Your task to perform on an android device: Search for the best burger restaurants on Maps Image 0: 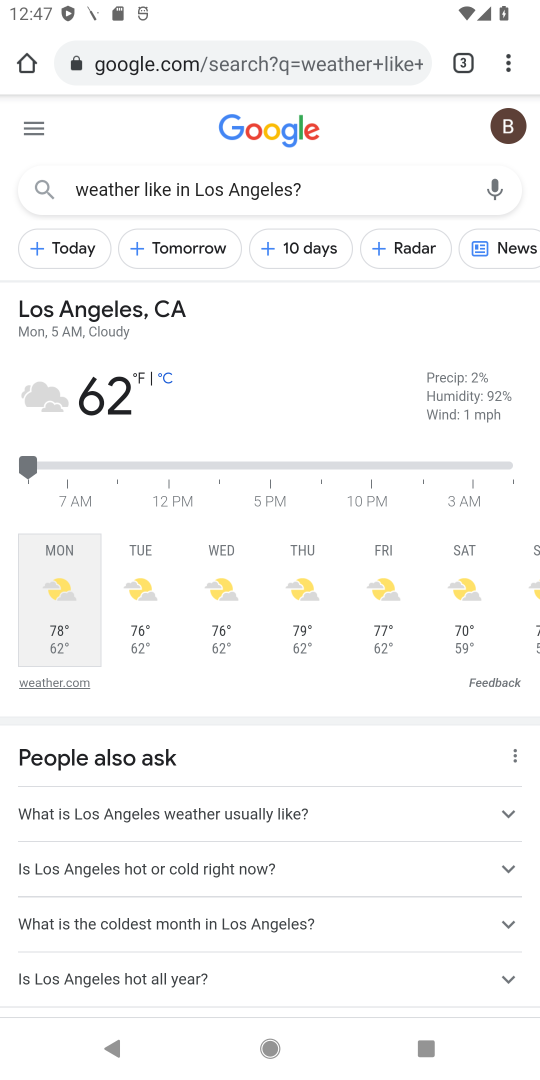
Step 0: press home button
Your task to perform on an android device: Search for the best burger restaurants on Maps Image 1: 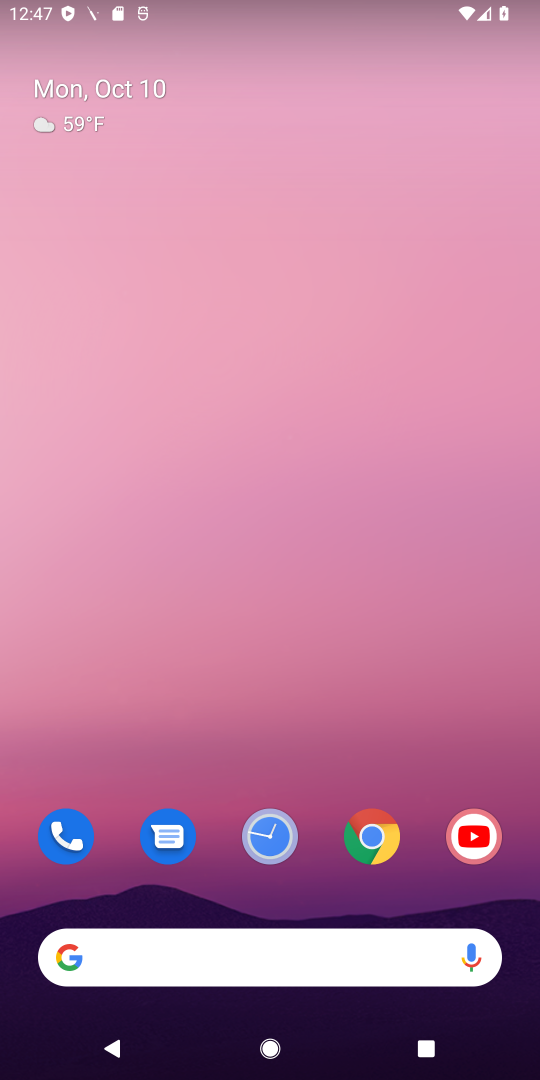
Step 1: drag from (394, 744) to (438, 317)
Your task to perform on an android device: Search for the best burger restaurants on Maps Image 2: 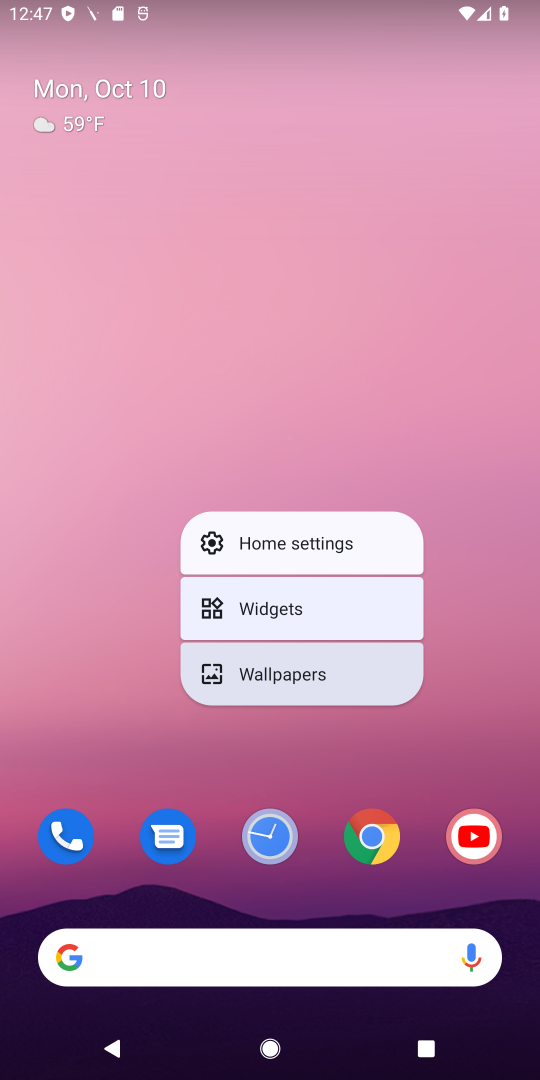
Step 2: click (474, 703)
Your task to perform on an android device: Search for the best burger restaurants on Maps Image 3: 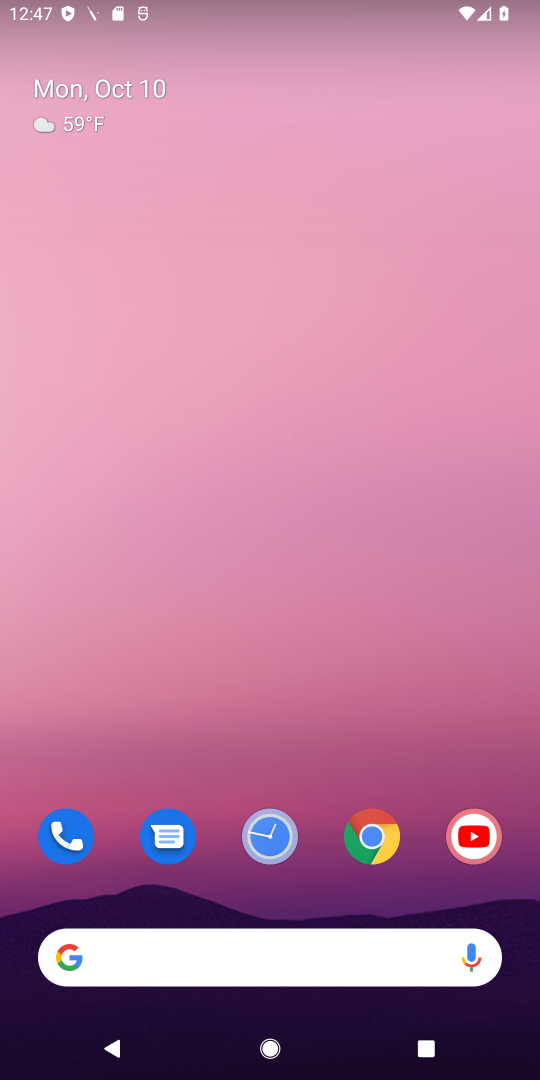
Step 3: click (474, 703)
Your task to perform on an android device: Search for the best burger restaurants on Maps Image 4: 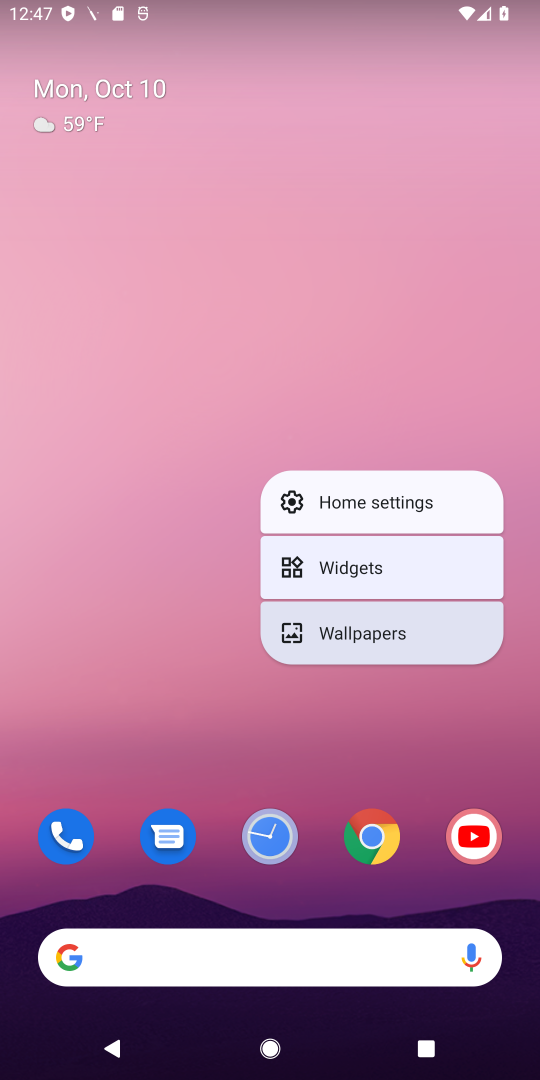
Step 4: click (227, 754)
Your task to perform on an android device: Search for the best burger restaurants on Maps Image 5: 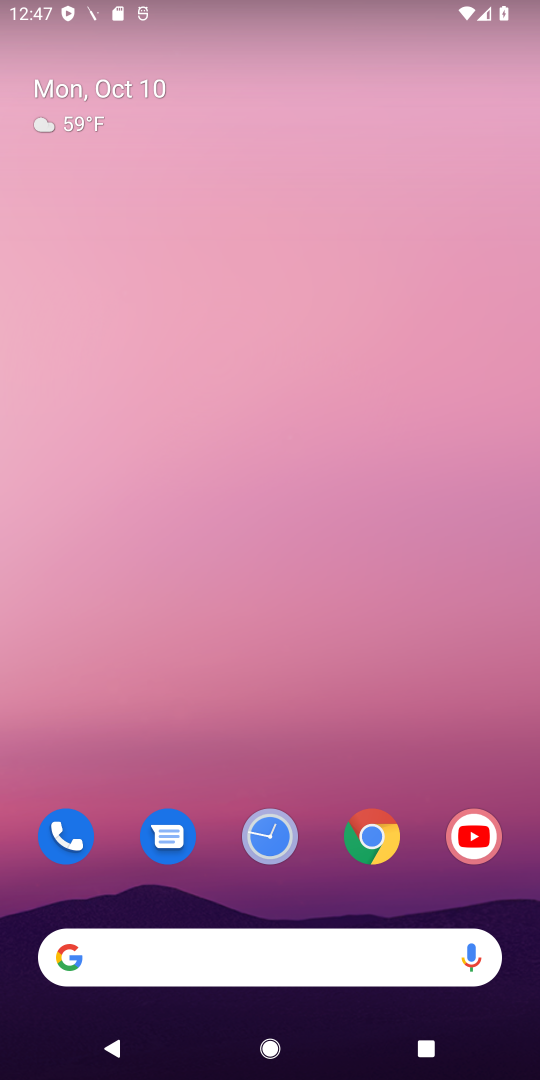
Step 5: drag from (227, 754) to (279, 274)
Your task to perform on an android device: Search for the best burger restaurants on Maps Image 6: 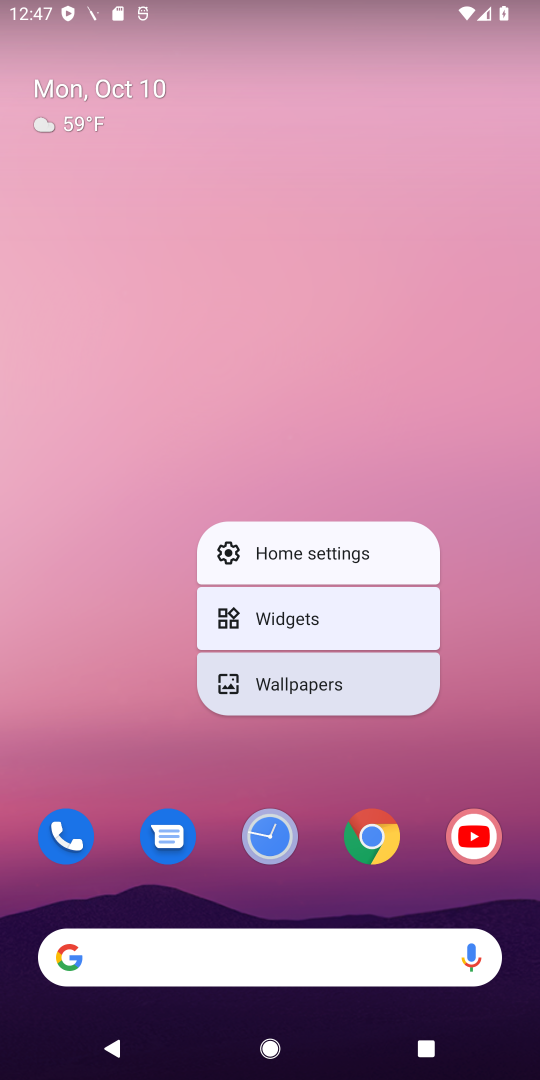
Step 6: click (279, 274)
Your task to perform on an android device: Search for the best burger restaurants on Maps Image 7: 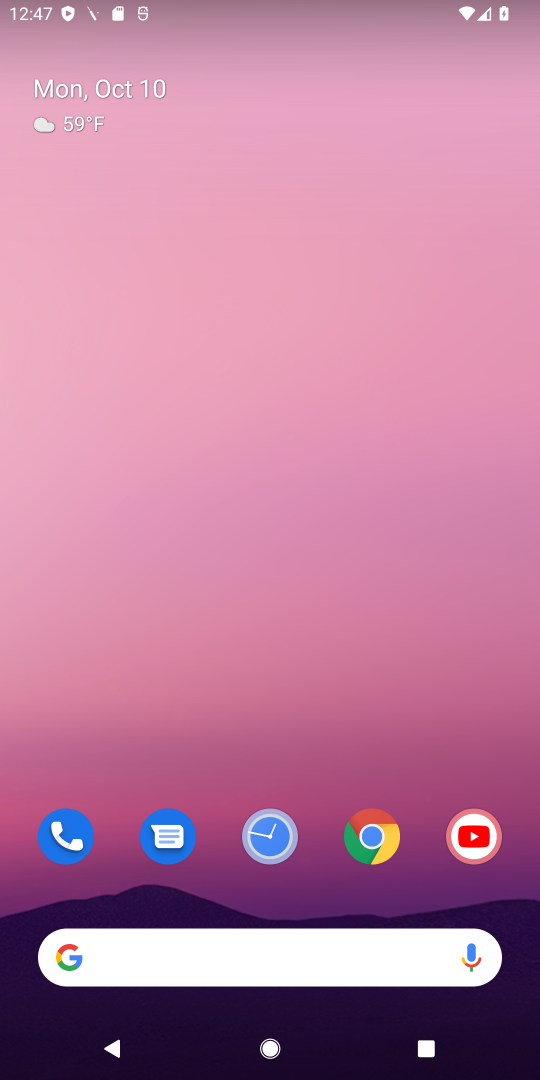
Step 7: drag from (329, 767) to (351, 164)
Your task to perform on an android device: Search for the best burger restaurants on Maps Image 8: 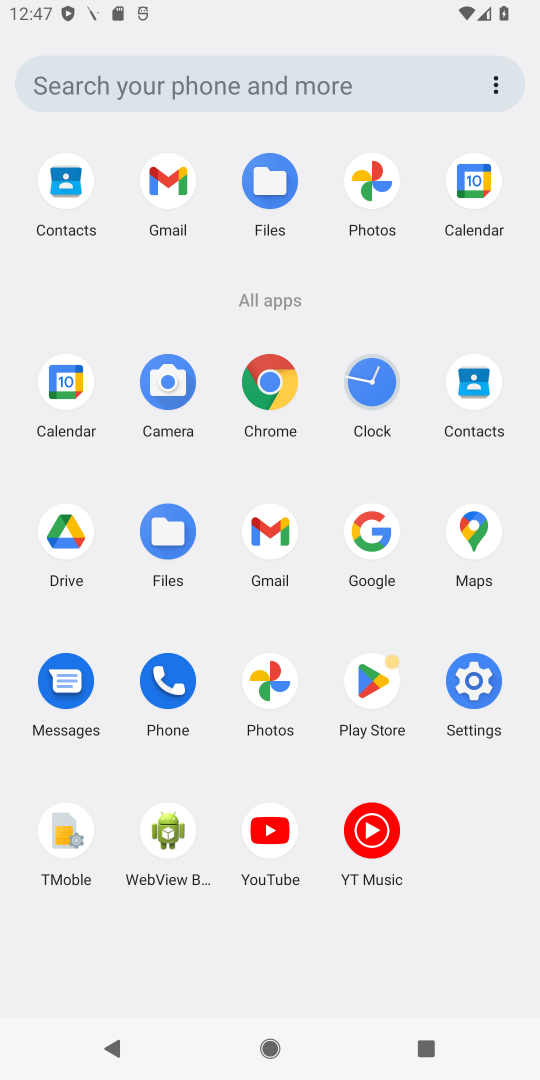
Step 8: click (487, 527)
Your task to perform on an android device: Search for the best burger restaurants on Maps Image 9: 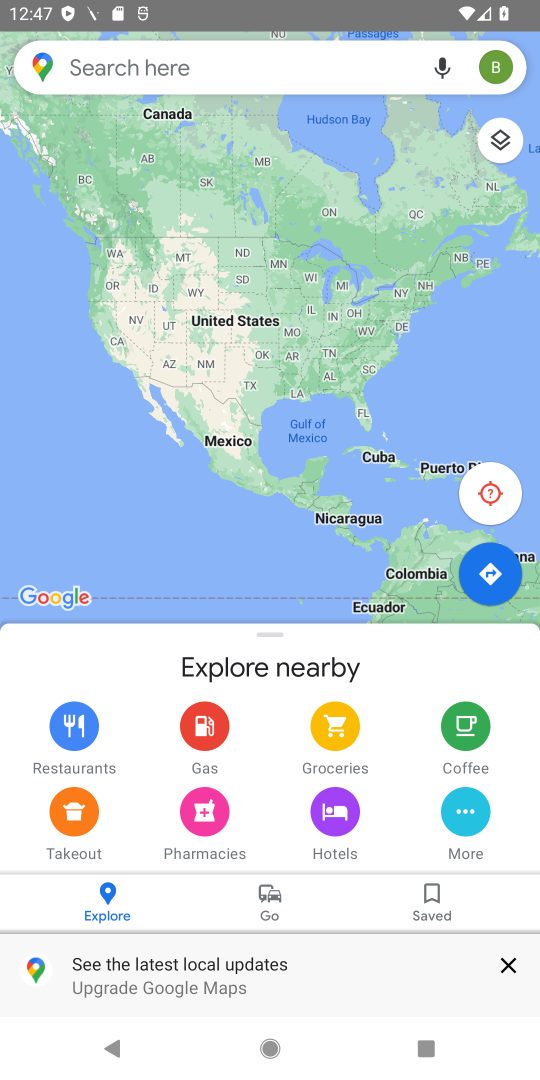
Step 9: click (181, 73)
Your task to perform on an android device: Search for the best burger restaurants on Maps Image 10: 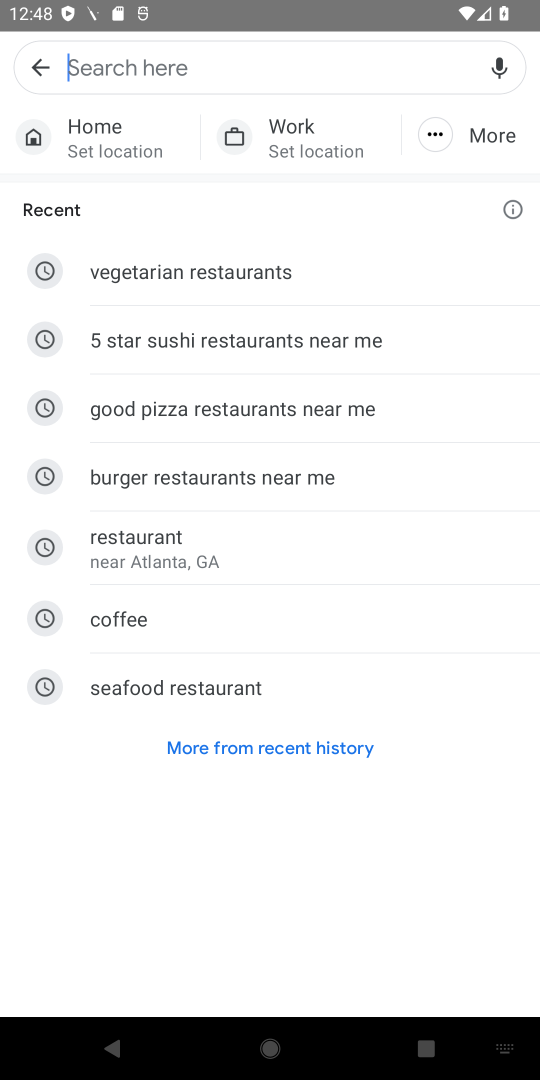
Step 10: type "best burger restaurants"
Your task to perform on an android device: Search for the best burger restaurants on Maps Image 11: 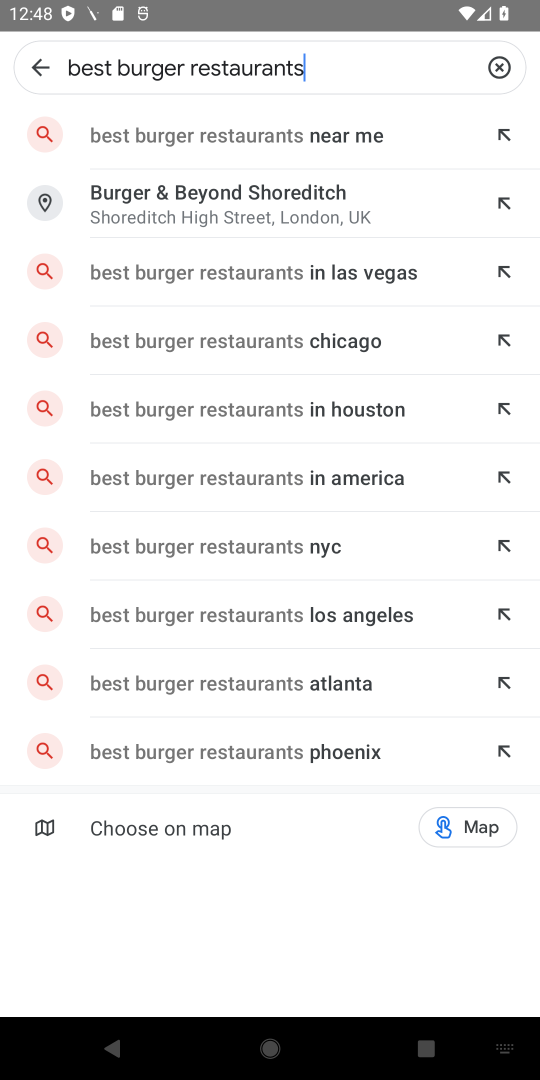
Step 11: press enter
Your task to perform on an android device: Search for the best burger restaurants on Maps Image 12: 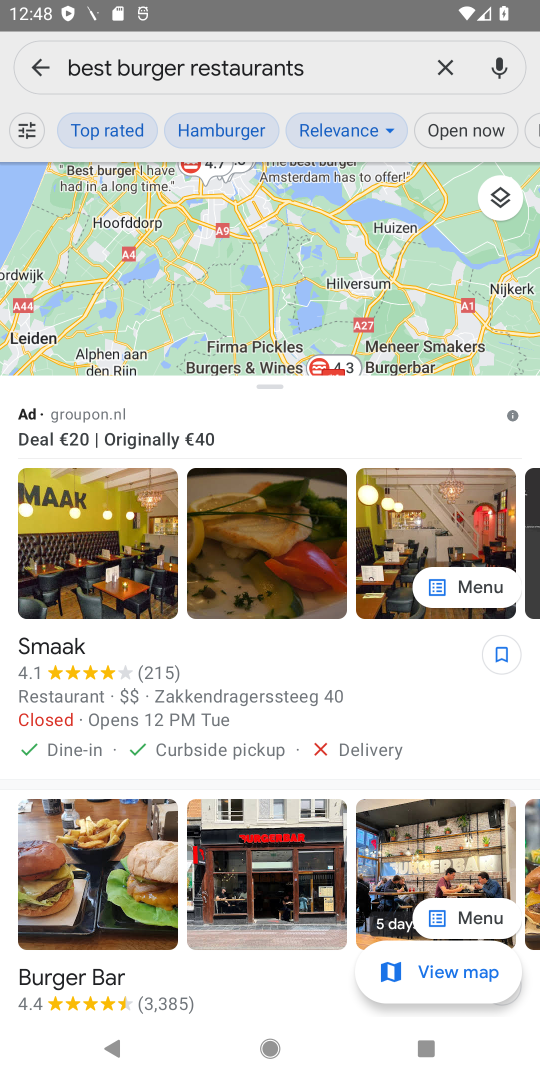
Step 12: task complete